Your task to perform on an android device: Go to settings Image 0: 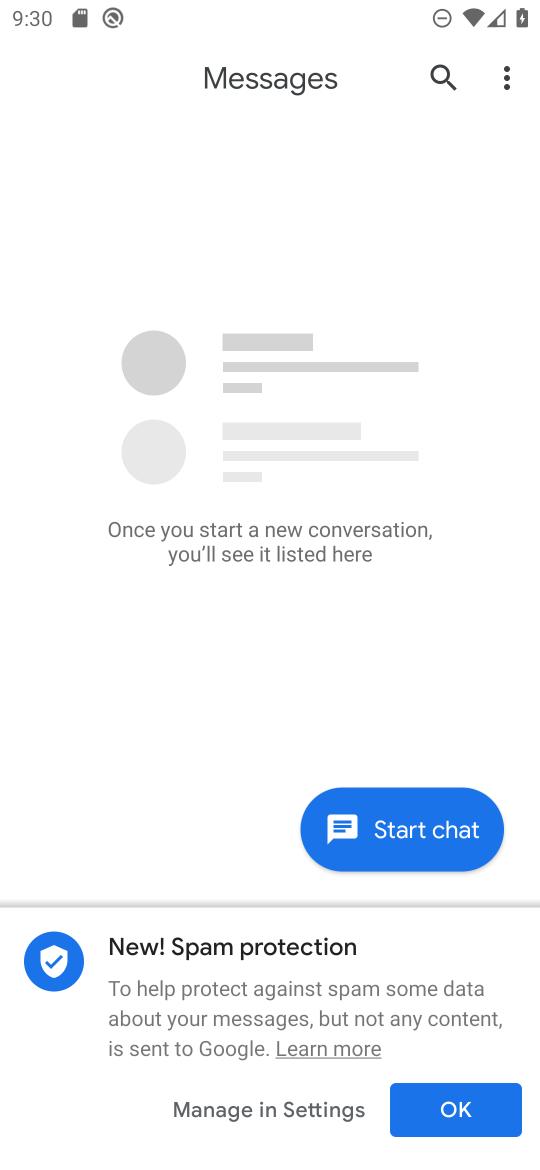
Step 0: press home button
Your task to perform on an android device: Go to settings Image 1: 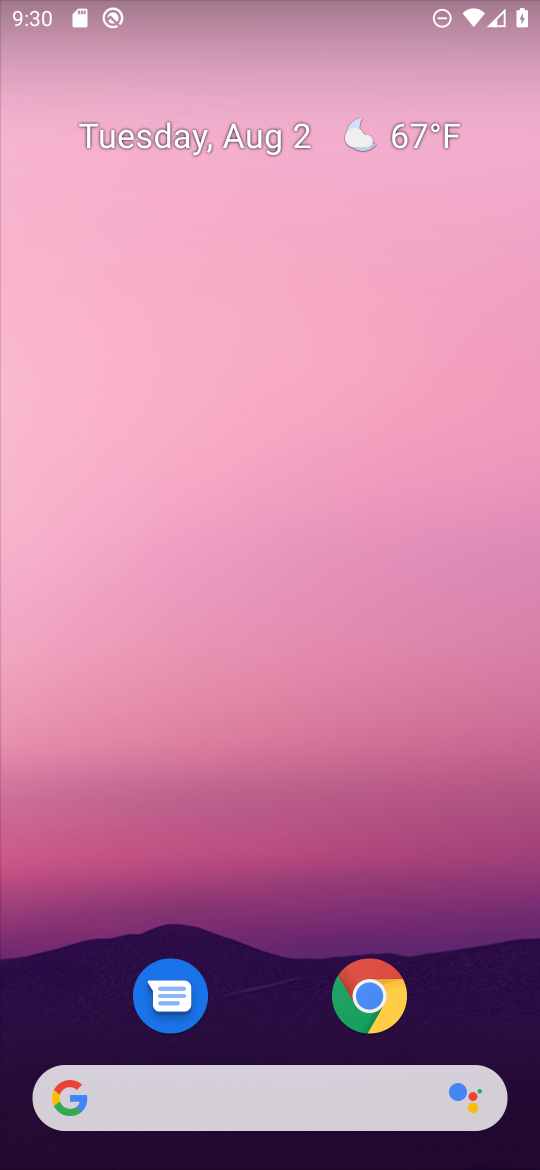
Step 1: drag from (282, 992) to (238, 85)
Your task to perform on an android device: Go to settings Image 2: 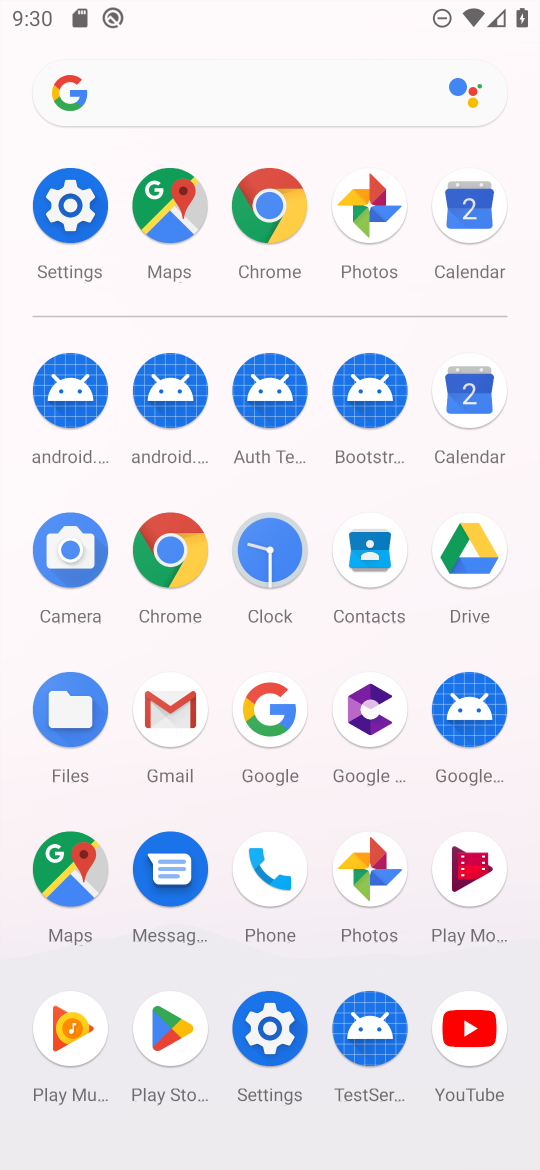
Step 2: click (258, 1020)
Your task to perform on an android device: Go to settings Image 3: 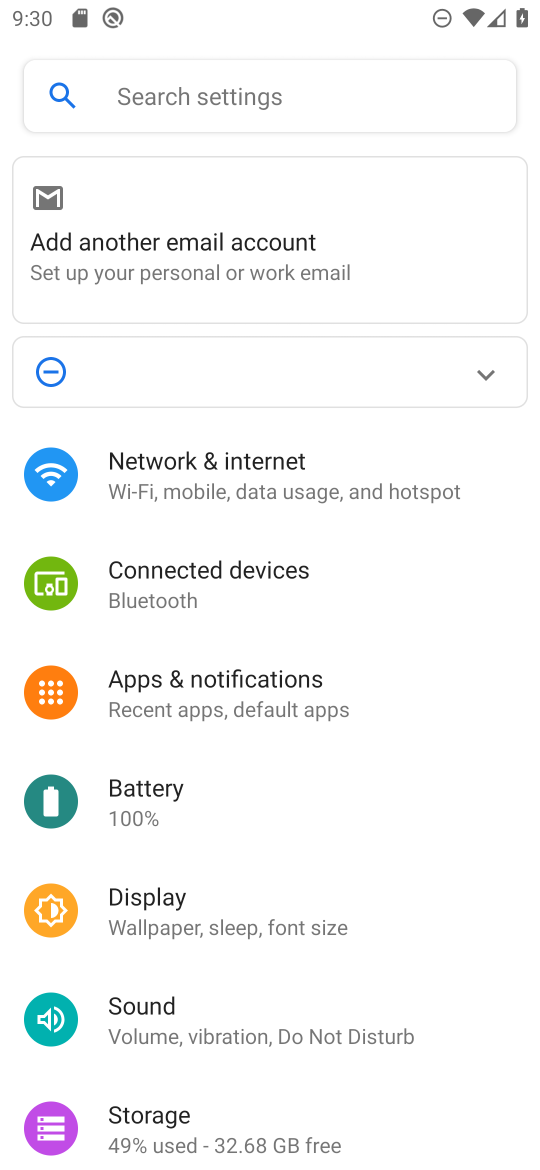
Step 3: task complete